Your task to perform on an android device: change notifications settings Image 0: 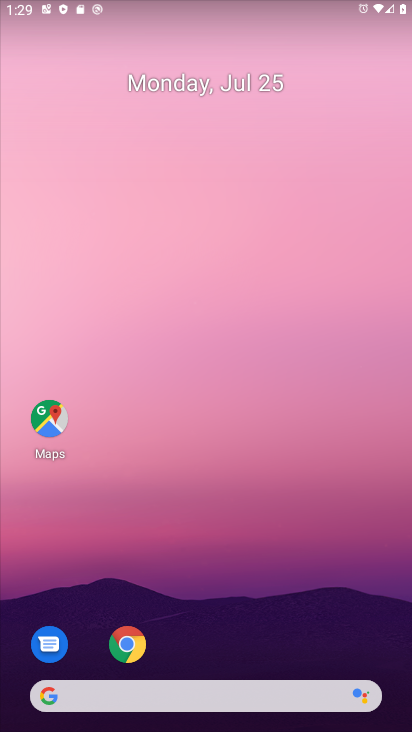
Step 0: drag from (347, 617) to (119, 47)
Your task to perform on an android device: change notifications settings Image 1: 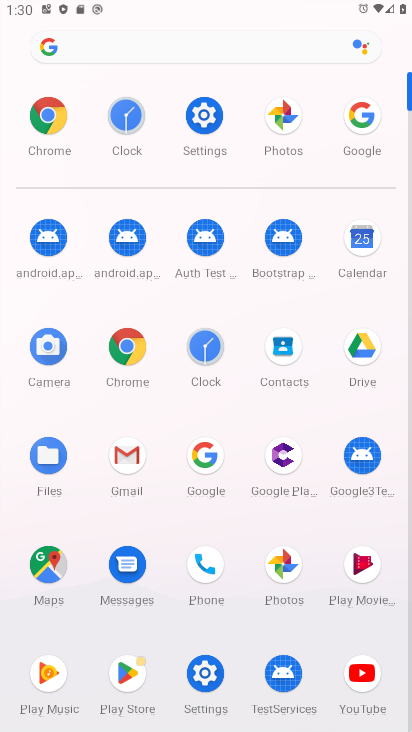
Step 1: click (218, 666)
Your task to perform on an android device: change notifications settings Image 2: 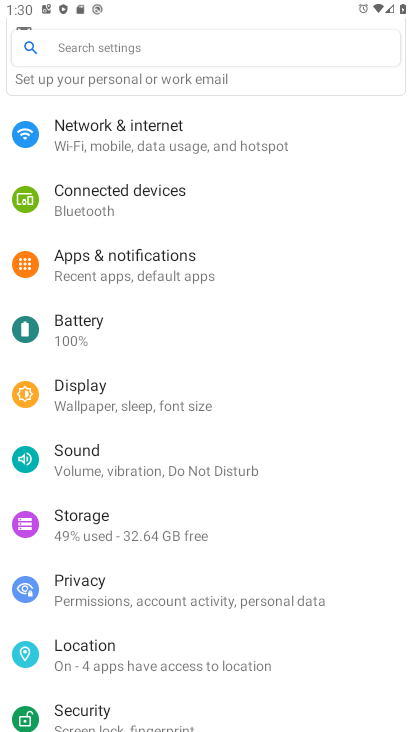
Step 2: click (115, 254)
Your task to perform on an android device: change notifications settings Image 3: 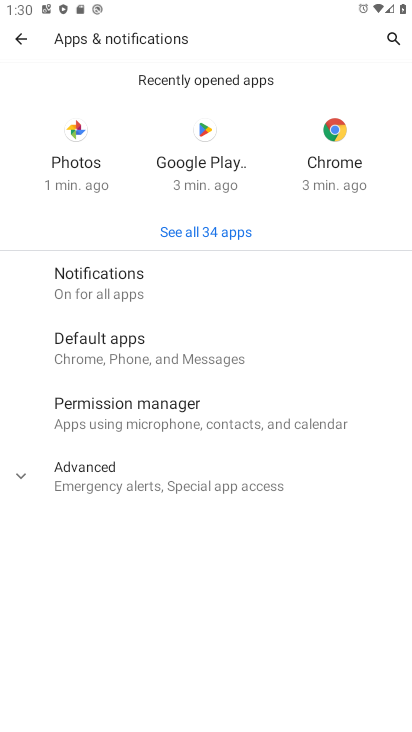
Step 3: task complete